Your task to perform on an android device: What's the weather going to be tomorrow? Image 0: 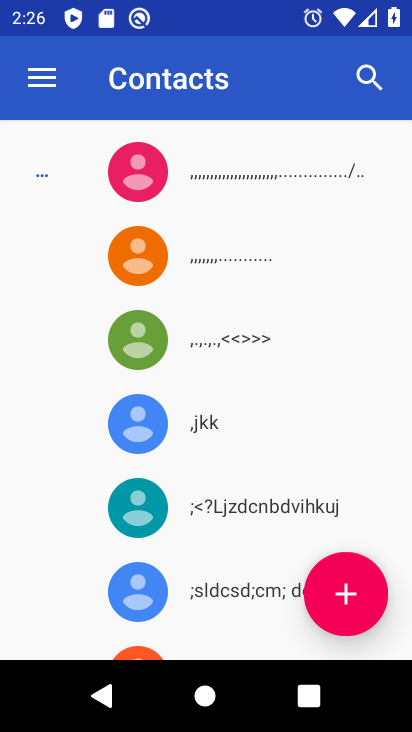
Step 0: press home button
Your task to perform on an android device: What's the weather going to be tomorrow? Image 1: 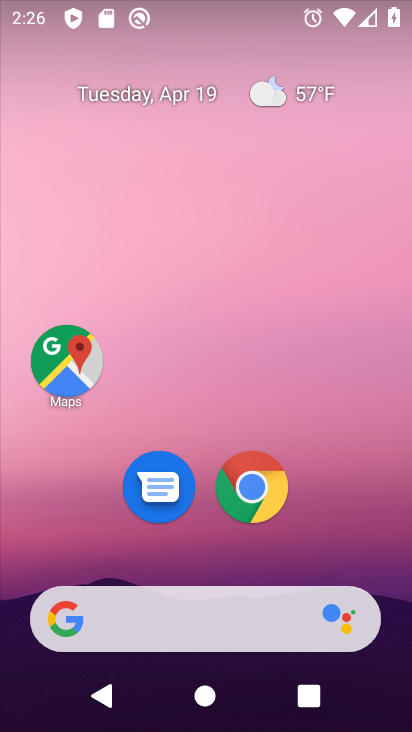
Step 1: click (270, 499)
Your task to perform on an android device: What's the weather going to be tomorrow? Image 2: 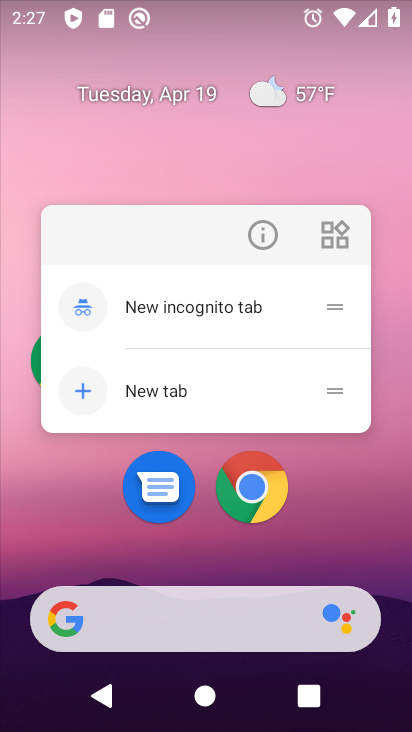
Step 2: click (323, 513)
Your task to perform on an android device: What's the weather going to be tomorrow? Image 3: 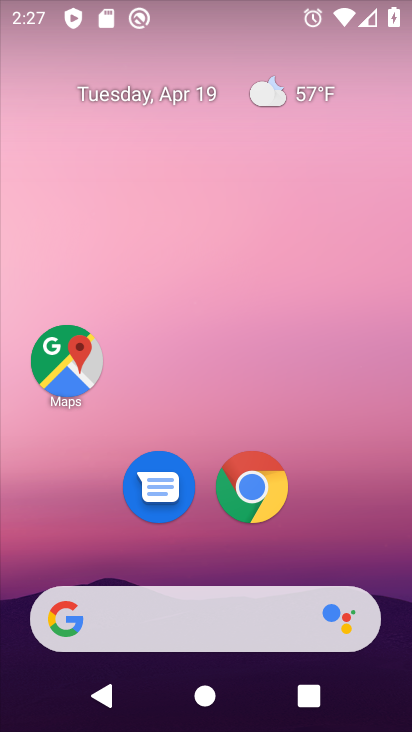
Step 3: drag from (351, 516) to (363, 112)
Your task to perform on an android device: What's the weather going to be tomorrow? Image 4: 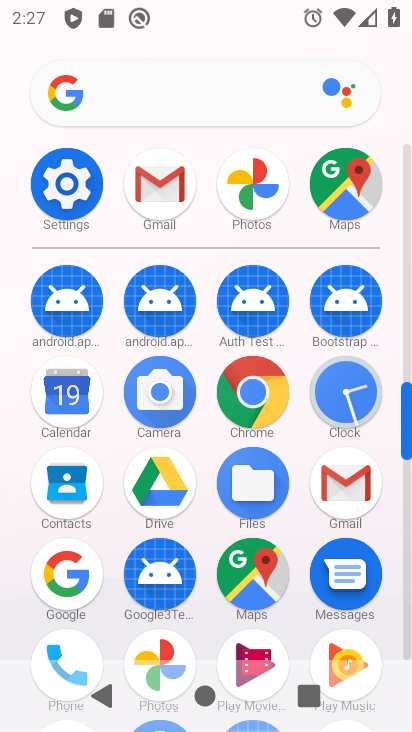
Step 4: click (247, 405)
Your task to perform on an android device: What's the weather going to be tomorrow? Image 5: 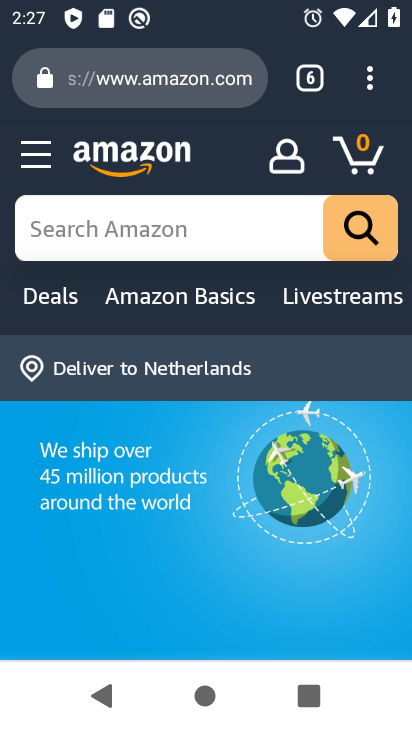
Step 5: click (309, 82)
Your task to perform on an android device: What's the weather going to be tomorrow? Image 6: 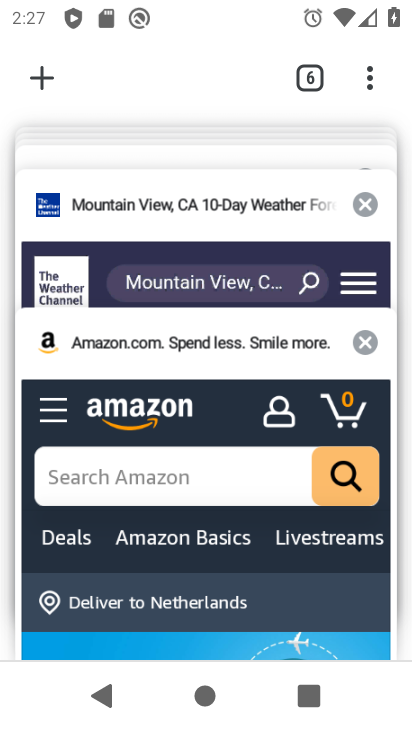
Step 6: click (37, 79)
Your task to perform on an android device: What's the weather going to be tomorrow? Image 7: 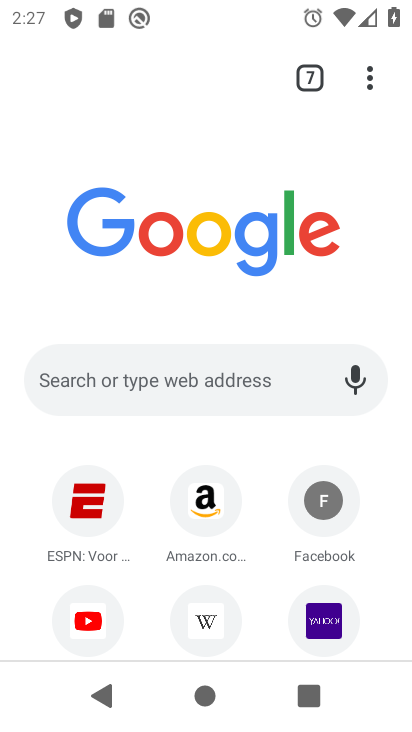
Step 7: click (286, 385)
Your task to perform on an android device: What's the weather going to be tomorrow? Image 8: 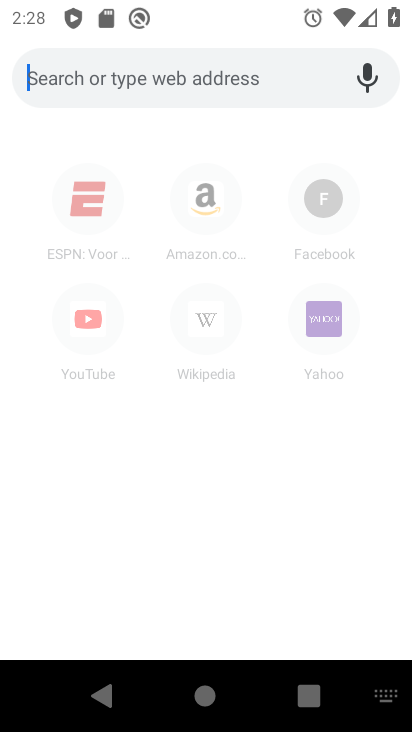
Step 8: type "what's the weather going to be tomorrow"
Your task to perform on an android device: What's the weather going to be tomorrow? Image 9: 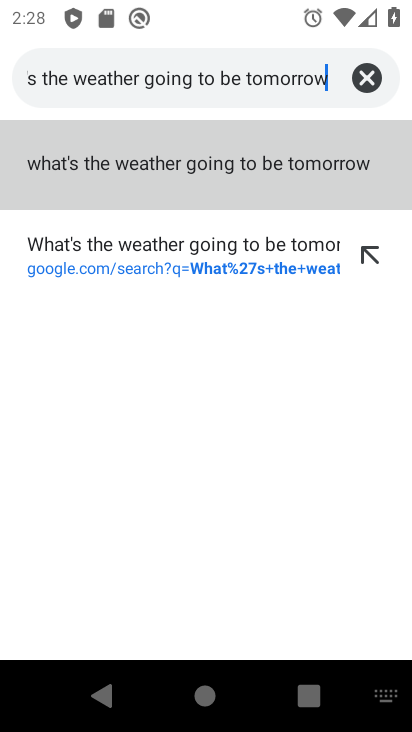
Step 9: click (207, 251)
Your task to perform on an android device: What's the weather going to be tomorrow? Image 10: 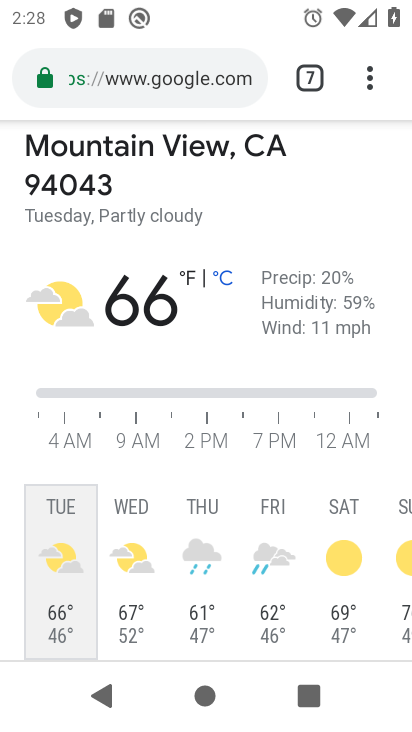
Step 10: task complete